Your task to perform on an android device: check out phone information Image 0: 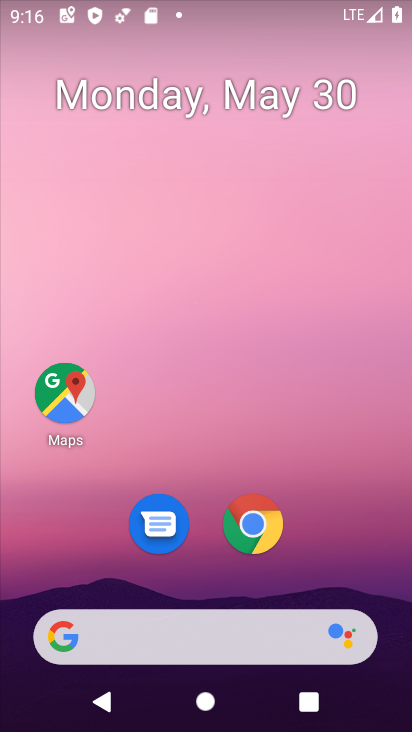
Step 0: press home button
Your task to perform on an android device: check out phone information Image 1: 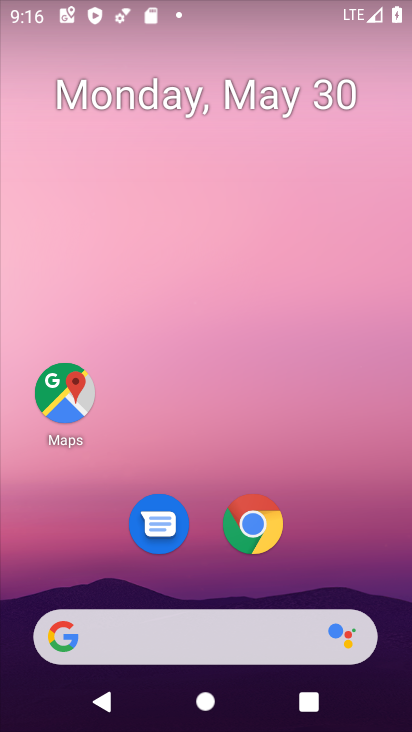
Step 1: drag from (318, 511) to (327, 7)
Your task to perform on an android device: check out phone information Image 2: 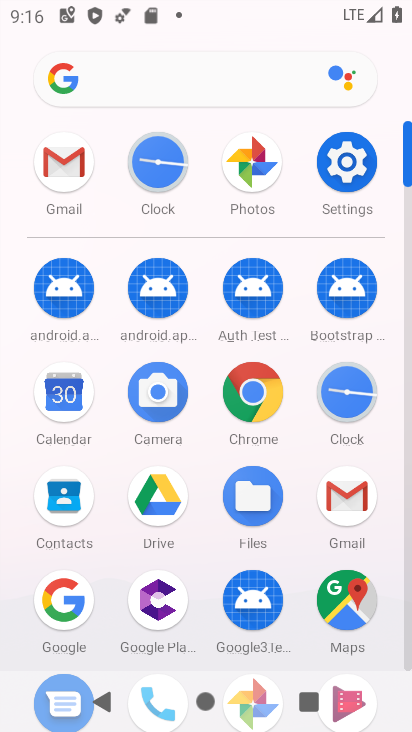
Step 2: drag from (213, 455) to (215, 162)
Your task to perform on an android device: check out phone information Image 3: 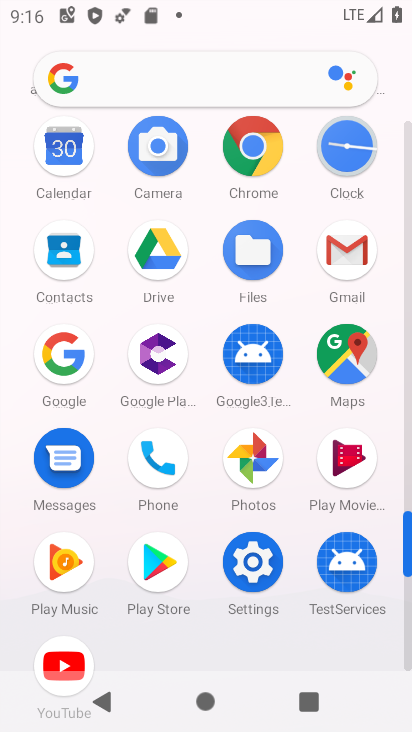
Step 3: click (163, 451)
Your task to perform on an android device: check out phone information Image 4: 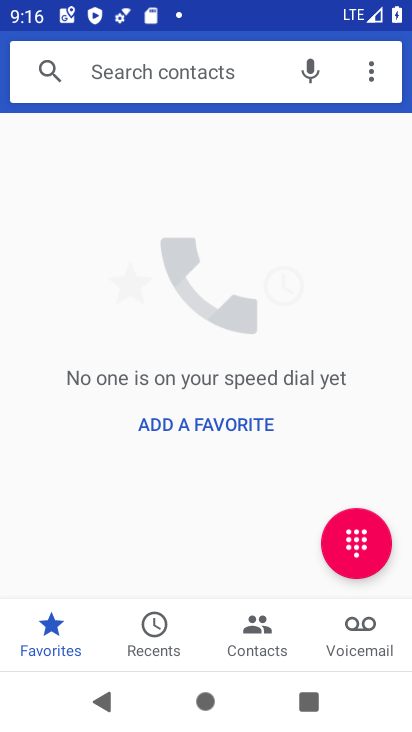
Step 4: click (360, 83)
Your task to perform on an android device: check out phone information Image 5: 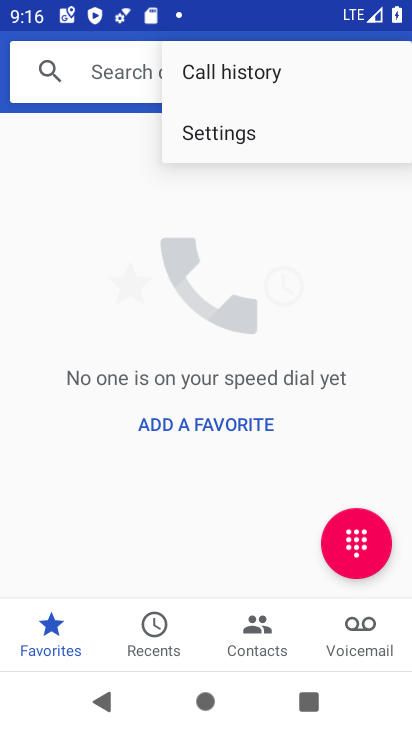
Step 5: click (317, 131)
Your task to perform on an android device: check out phone information Image 6: 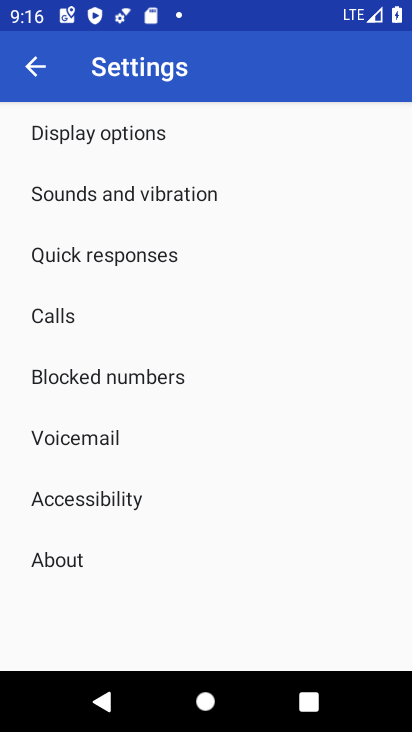
Step 6: click (74, 548)
Your task to perform on an android device: check out phone information Image 7: 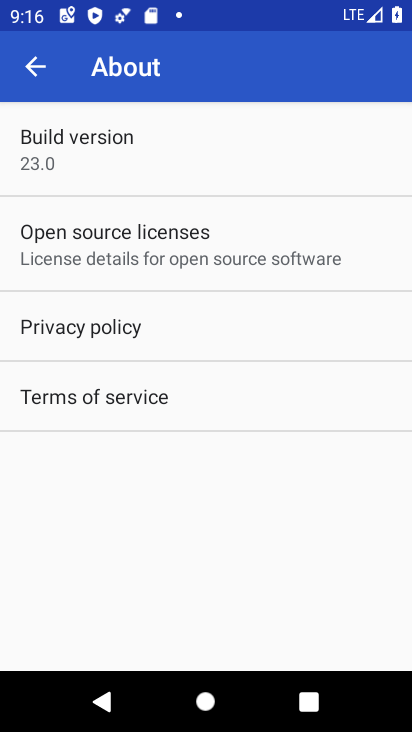
Step 7: task complete